Your task to perform on an android device: Do I have any events today? Image 0: 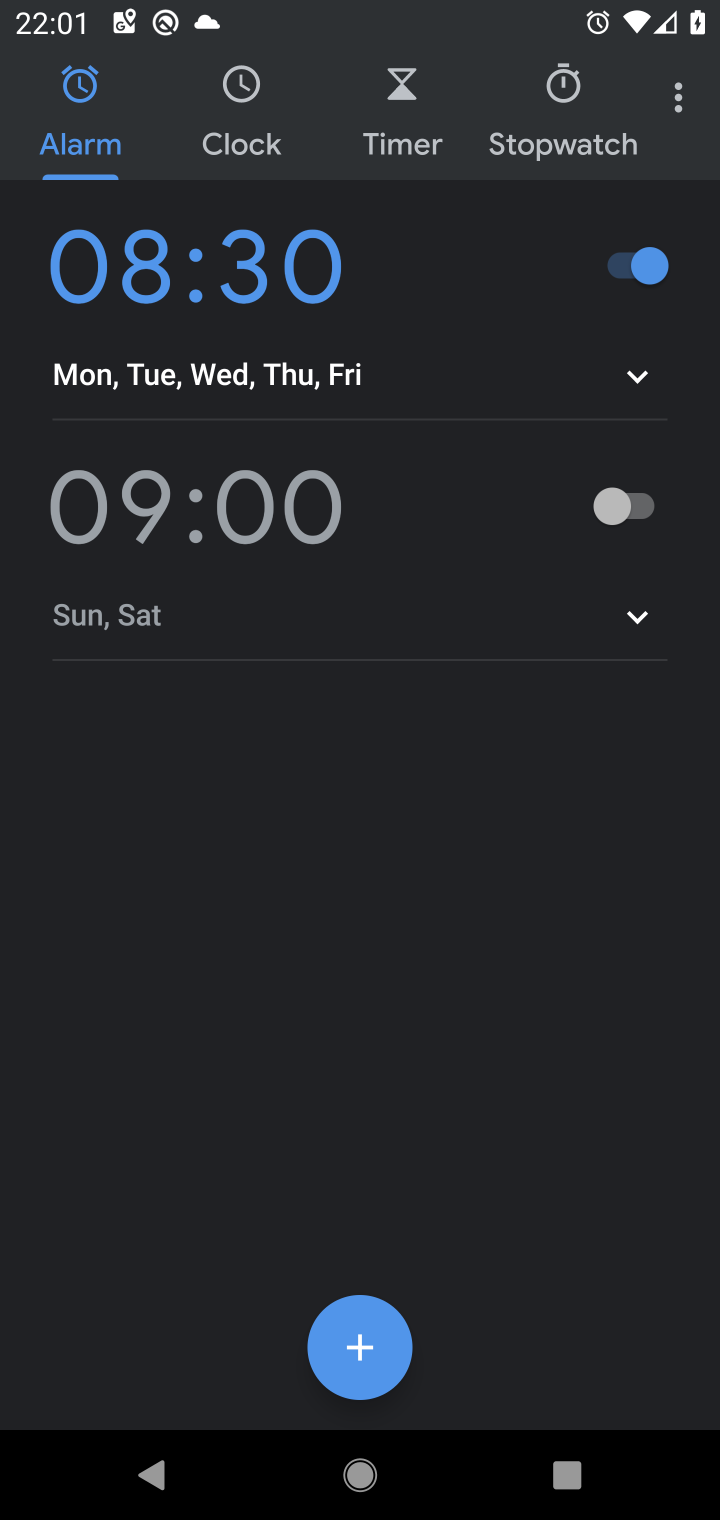
Step 0: press home button
Your task to perform on an android device: Do I have any events today? Image 1: 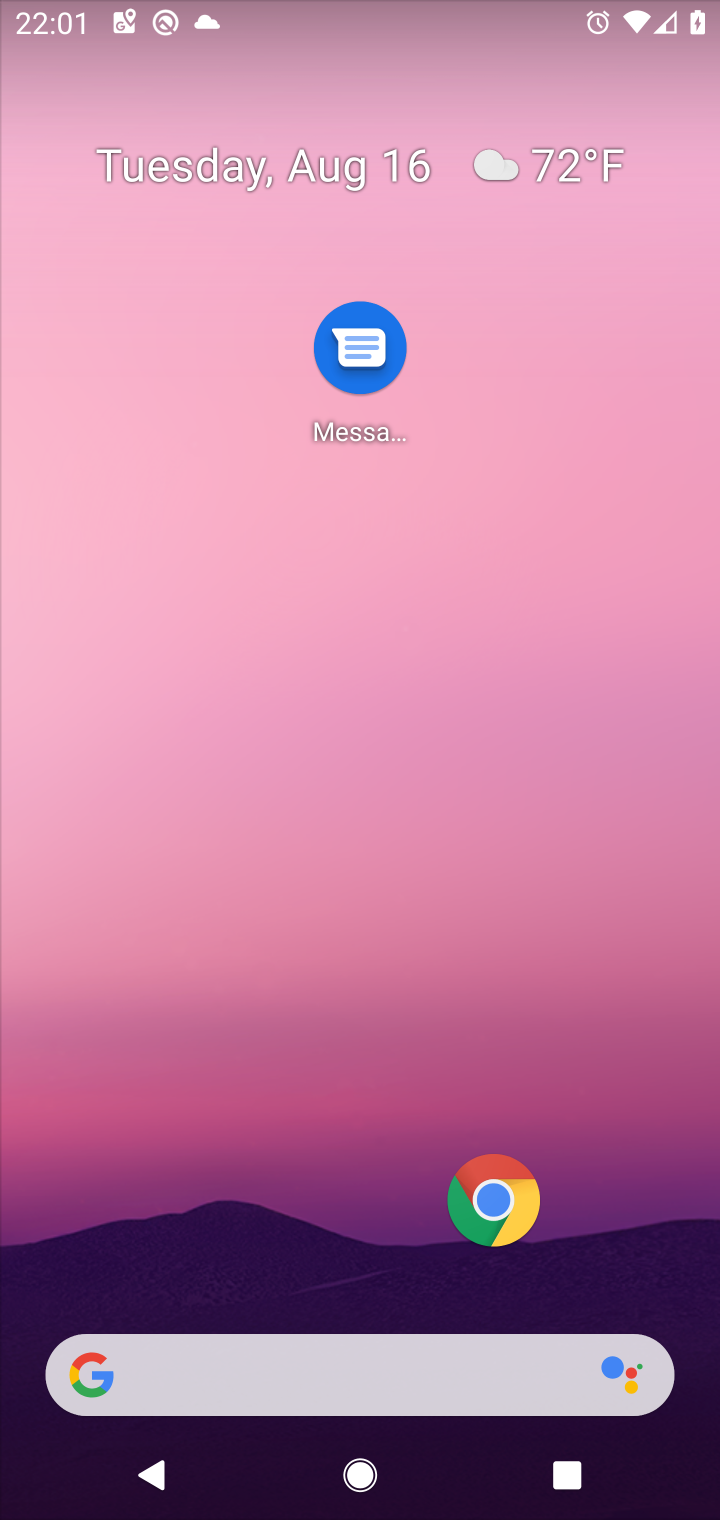
Step 1: task complete